Your task to perform on an android device: Go to Yahoo.com Image 0: 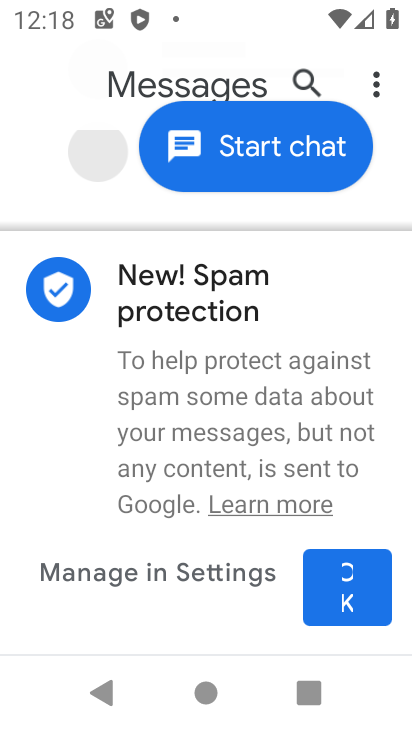
Step 0: press home button
Your task to perform on an android device: Go to Yahoo.com Image 1: 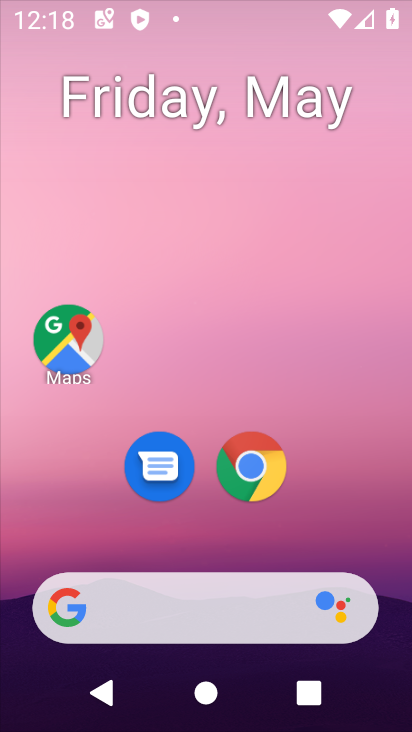
Step 1: drag from (394, 636) to (312, 39)
Your task to perform on an android device: Go to Yahoo.com Image 2: 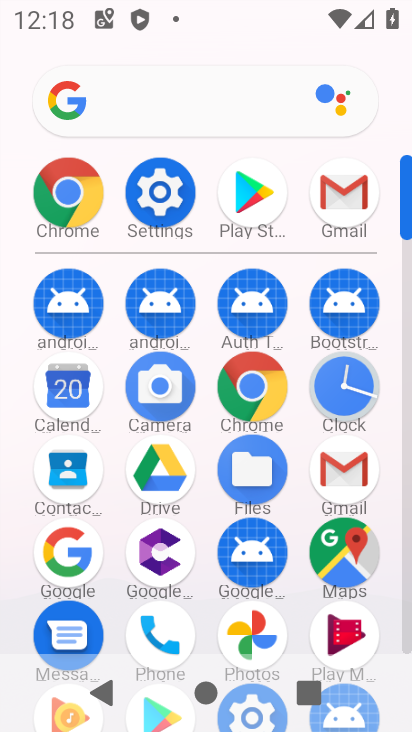
Step 2: click (61, 198)
Your task to perform on an android device: Go to Yahoo.com Image 3: 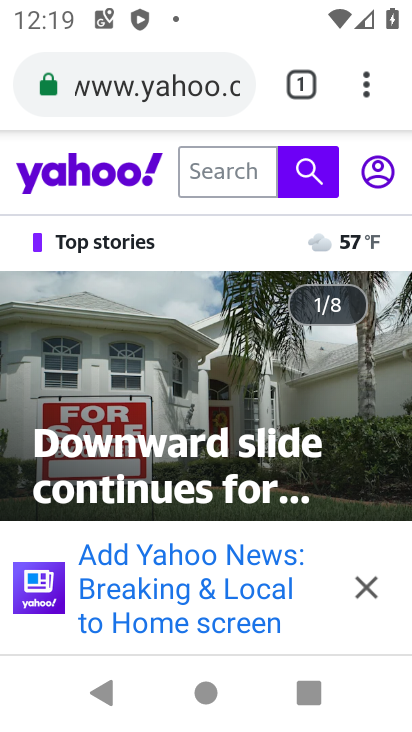
Step 3: task complete